Your task to perform on an android device: turn off priority inbox in the gmail app Image 0: 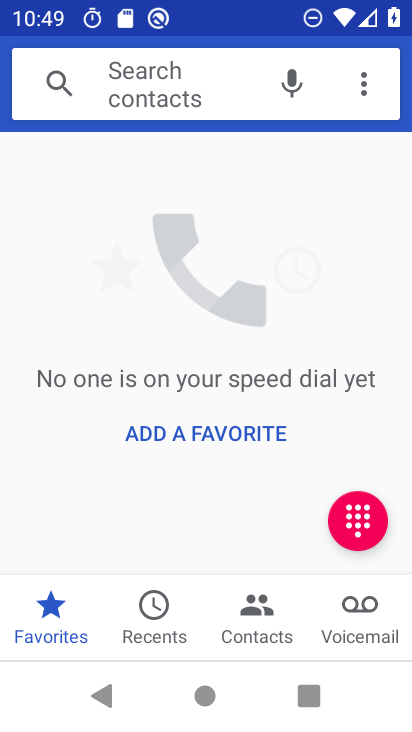
Step 0: press home button
Your task to perform on an android device: turn off priority inbox in the gmail app Image 1: 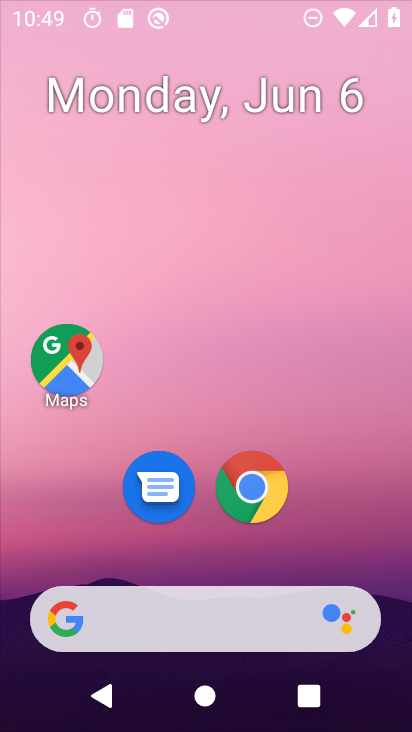
Step 1: drag from (399, 635) to (264, 14)
Your task to perform on an android device: turn off priority inbox in the gmail app Image 2: 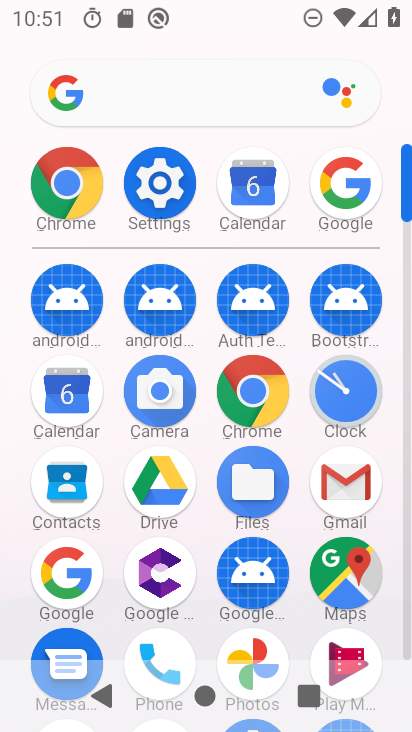
Step 2: click (336, 488)
Your task to perform on an android device: turn off priority inbox in the gmail app Image 3: 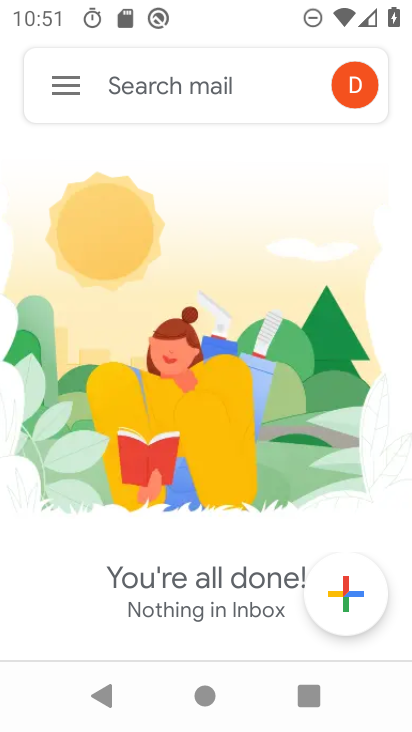
Step 3: click (58, 75)
Your task to perform on an android device: turn off priority inbox in the gmail app Image 4: 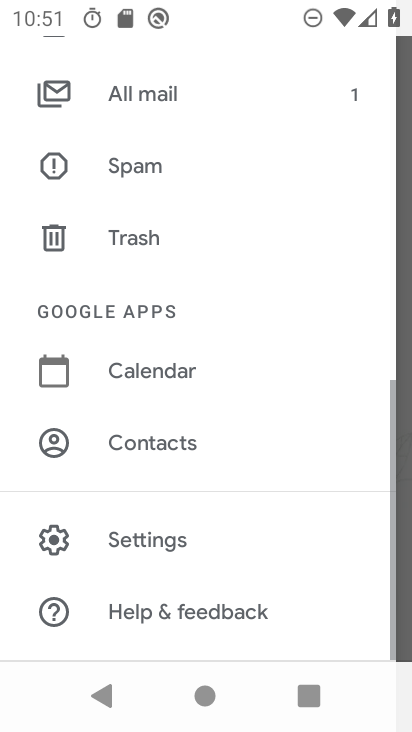
Step 4: click (178, 535)
Your task to perform on an android device: turn off priority inbox in the gmail app Image 5: 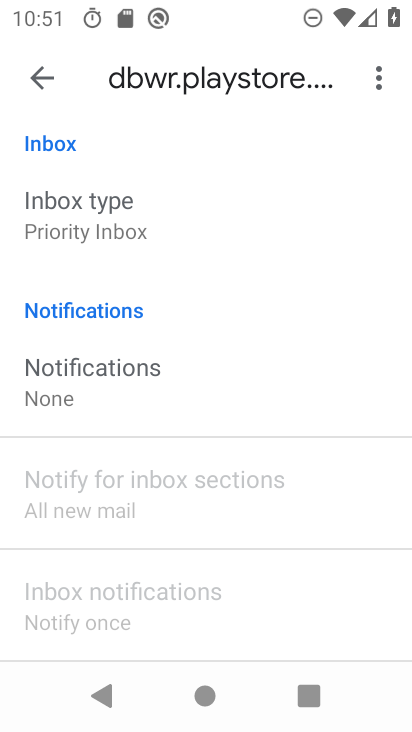
Step 5: click (117, 242)
Your task to perform on an android device: turn off priority inbox in the gmail app Image 6: 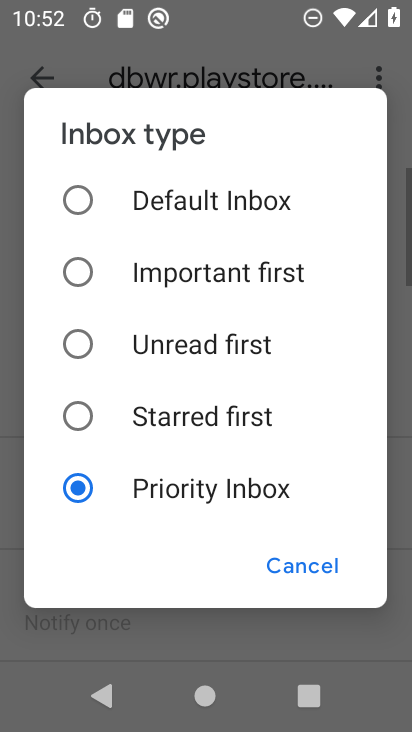
Step 6: click (60, 193)
Your task to perform on an android device: turn off priority inbox in the gmail app Image 7: 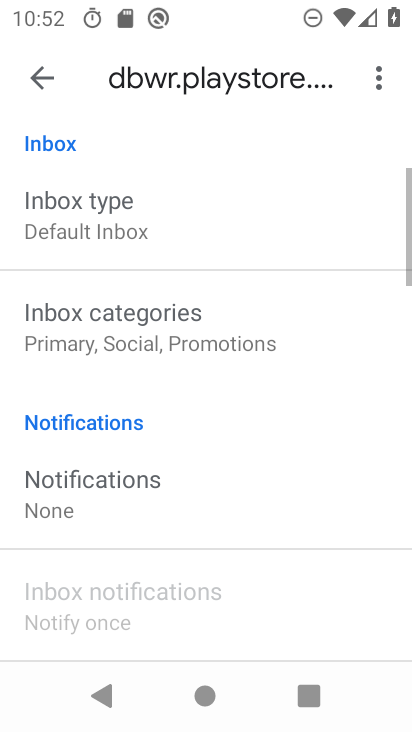
Step 7: task complete